Your task to perform on an android device: Add asus zenbook to the cart on ebay Image 0: 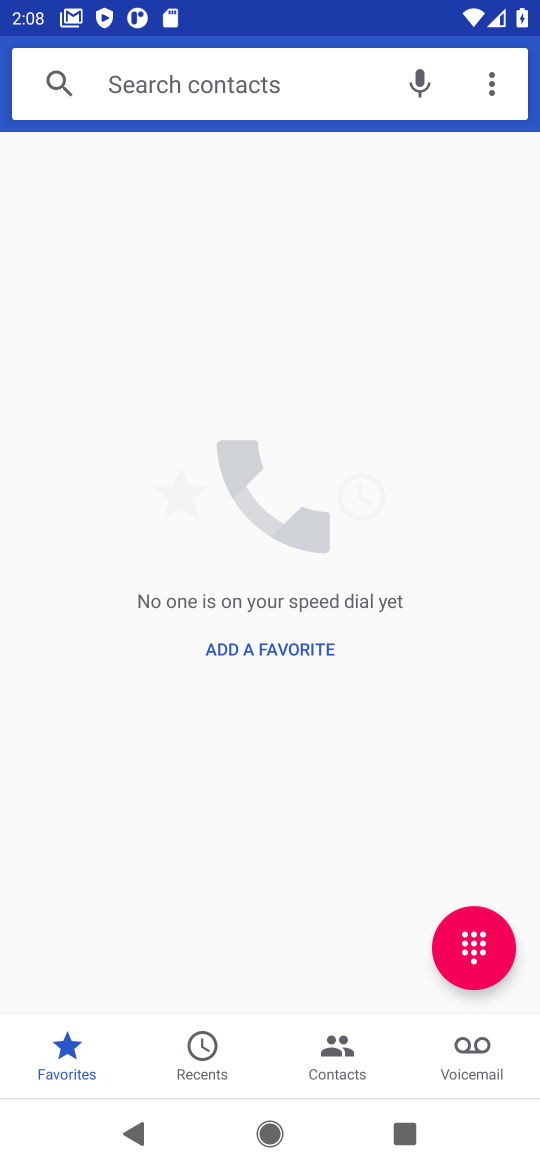
Step 0: press home button
Your task to perform on an android device: Add asus zenbook to the cart on ebay Image 1: 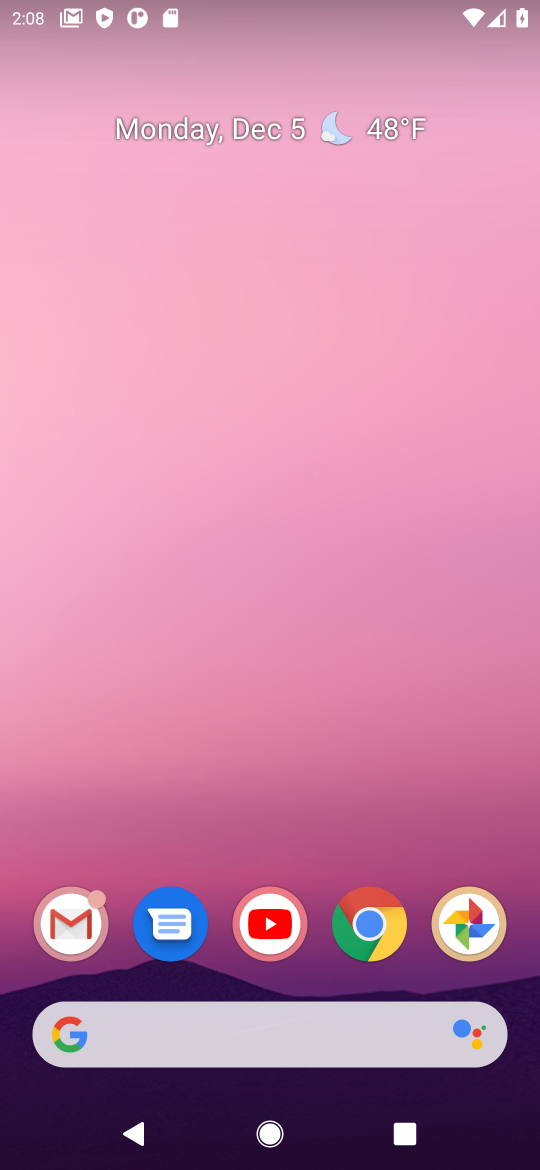
Step 1: click (306, 1040)
Your task to perform on an android device: Add asus zenbook to the cart on ebay Image 2: 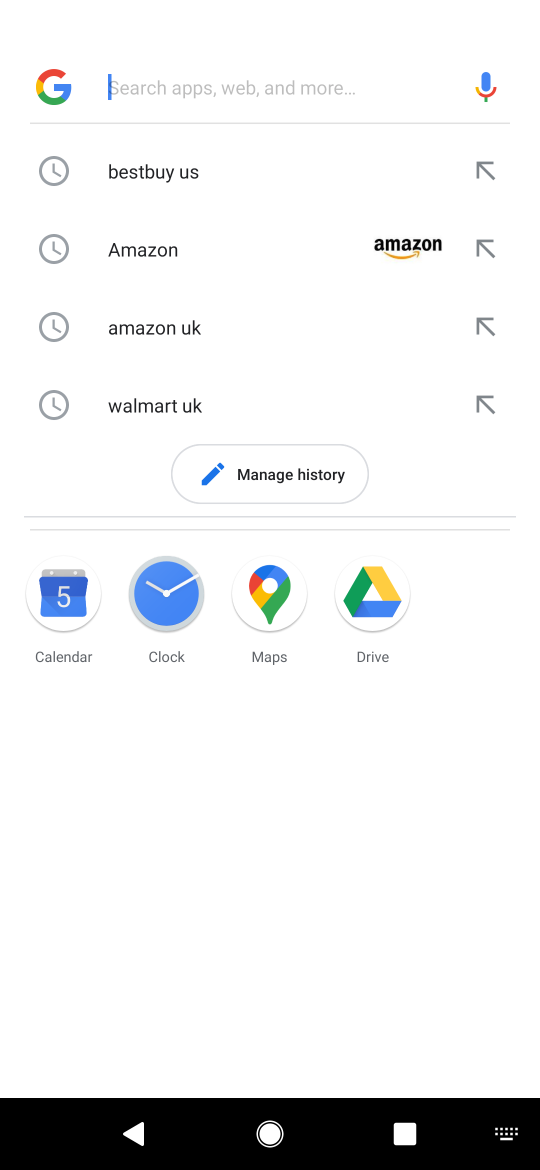
Step 2: type "ebay.com"
Your task to perform on an android device: Add asus zenbook to the cart on ebay Image 3: 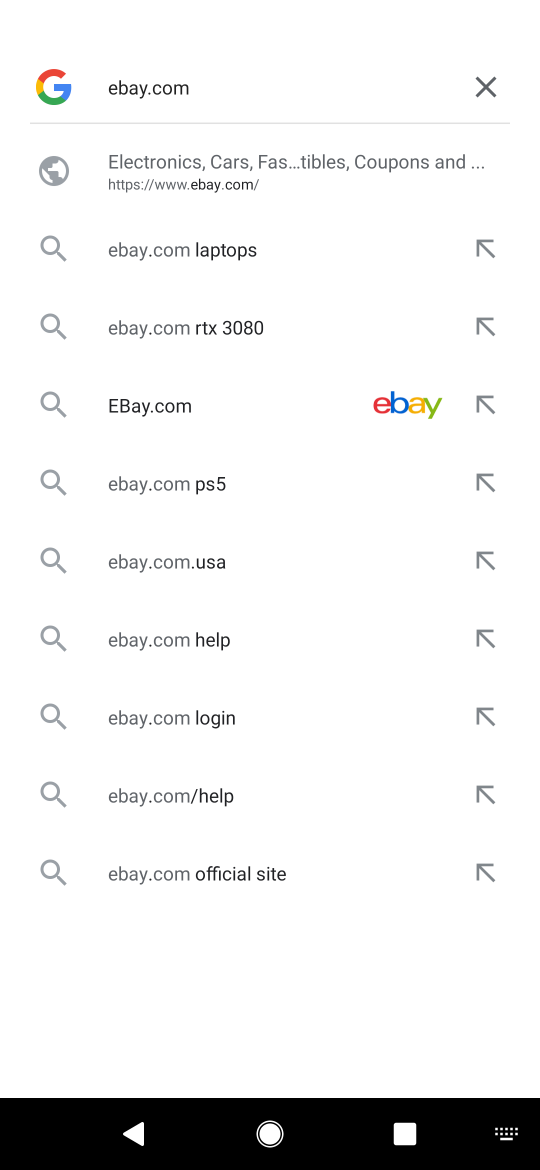
Step 3: click (143, 408)
Your task to perform on an android device: Add asus zenbook to the cart on ebay Image 4: 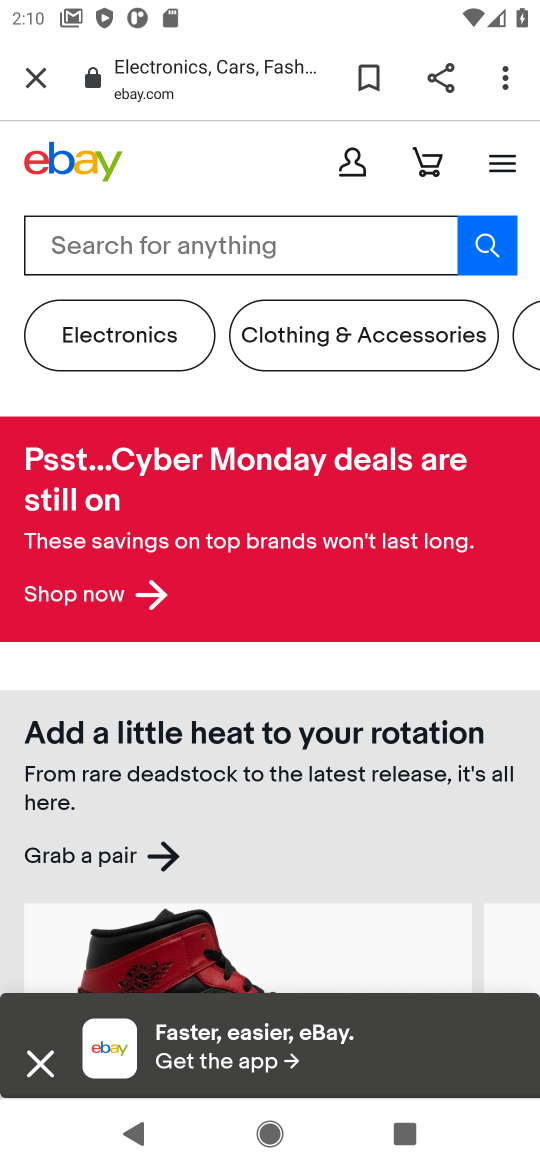
Step 4: task complete